Your task to perform on an android device: add a contact Image 0: 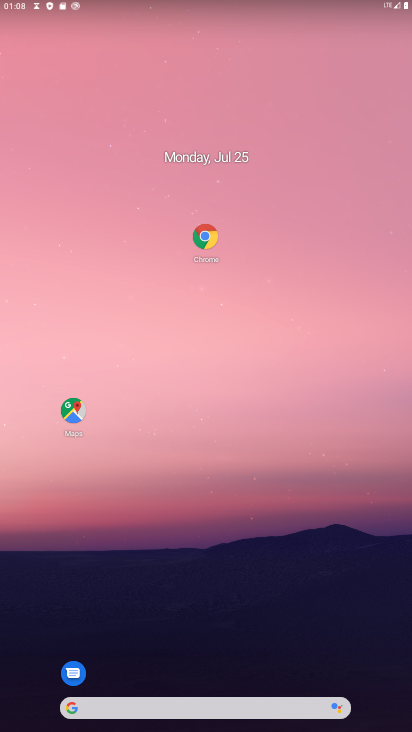
Step 0: drag from (297, 674) to (391, 3)
Your task to perform on an android device: add a contact Image 1: 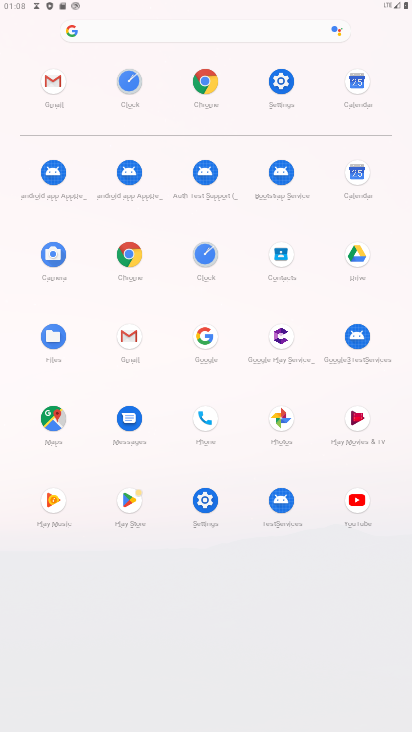
Step 1: click (285, 258)
Your task to perform on an android device: add a contact Image 2: 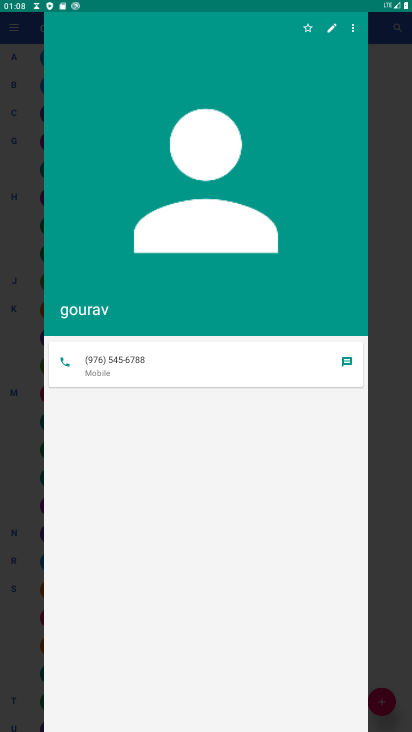
Step 2: press back button
Your task to perform on an android device: add a contact Image 3: 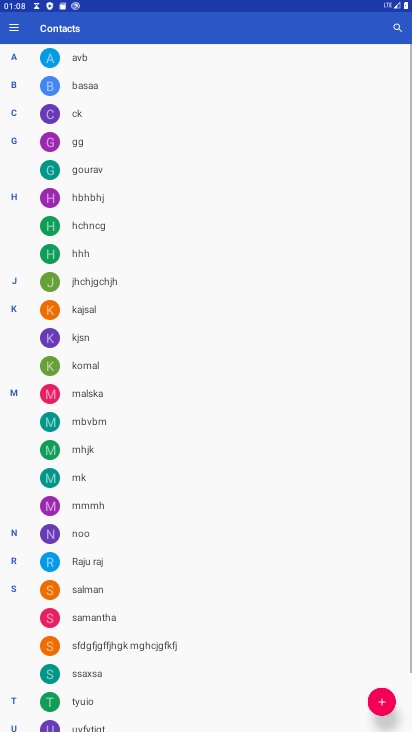
Step 3: click (390, 702)
Your task to perform on an android device: add a contact Image 4: 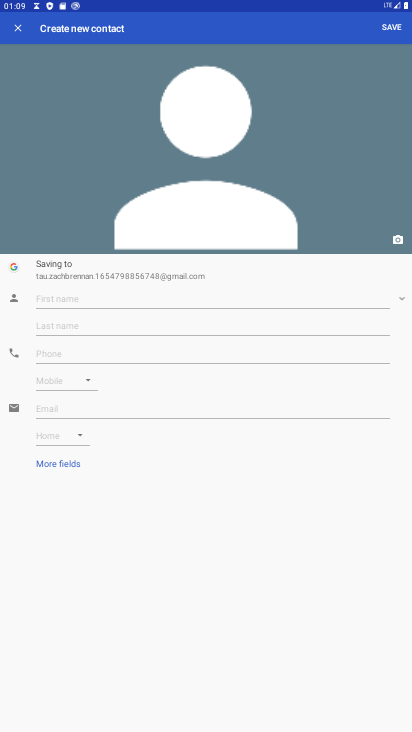
Step 4: click (173, 300)
Your task to perform on an android device: add a contact Image 5: 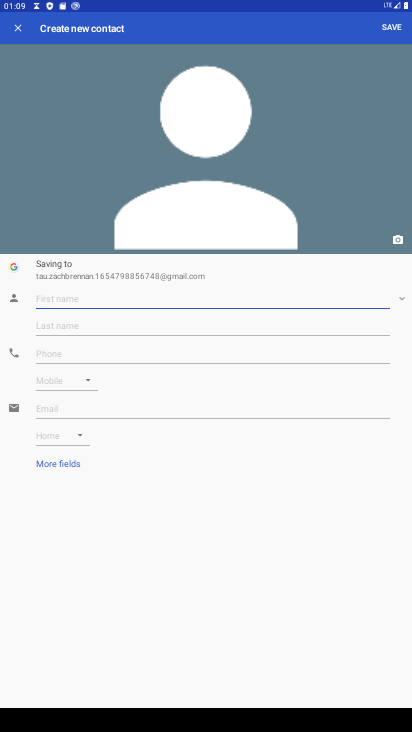
Step 5: type "kajol"
Your task to perform on an android device: add a contact Image 6: 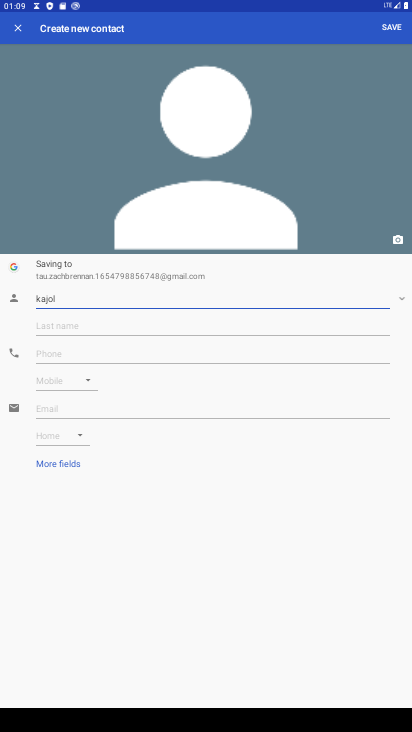
Step 6: click (144, 352)
Your task to perform on an android device: add a contact Image 7: 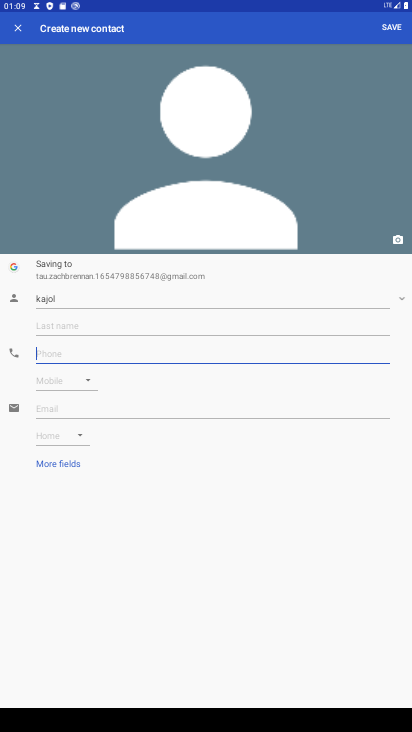
Step 7: type "9897656788"
Your task to perform on an android device: add a contact Image 8: 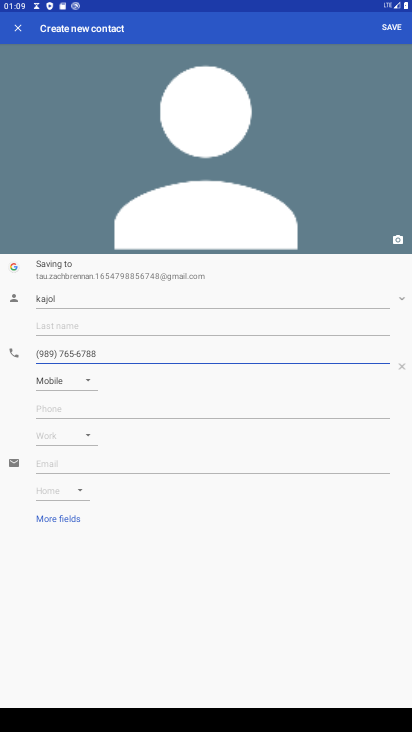
Step 8: click (395, 24)
Your task to perform on an android device: add a contact Image 9: 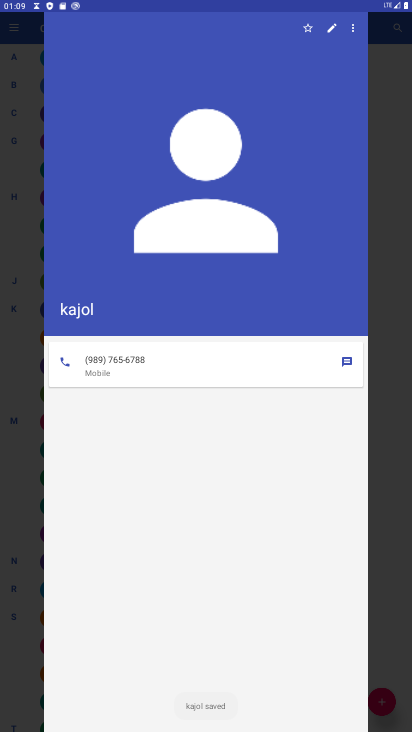
Step 9: task complete